Your task to perform on an android device: Go to accessibility settings Image 0: 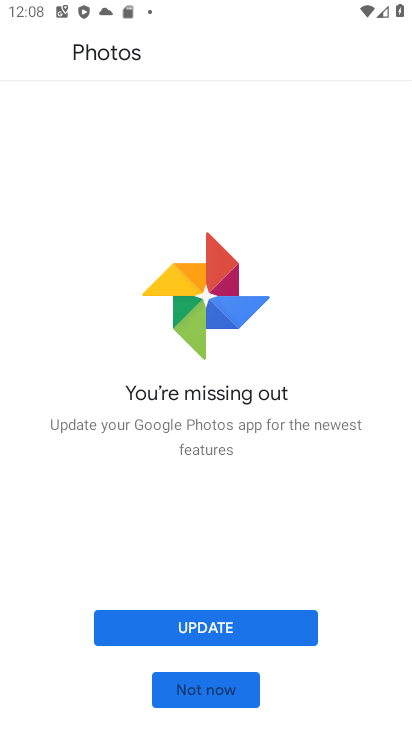
Step 0: click (240, 619)
Your task to perform on an android device: Go to accessibility settings Image 1: 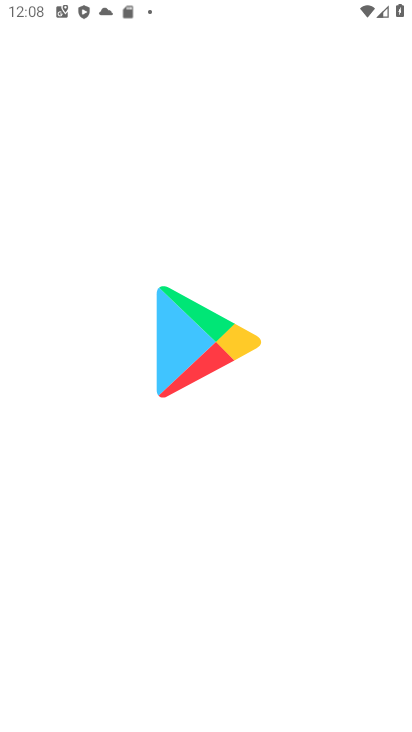
Step 1: task complete